Your task to perform on an android device: Open Youtube and go to "Your channel" Image 0: 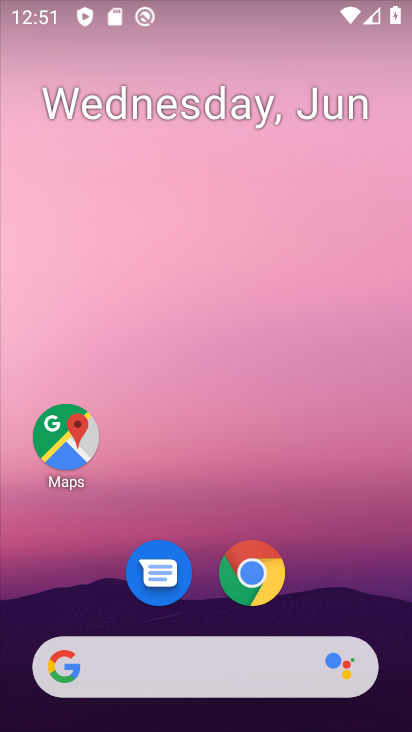
Step 0: drag from (349, 583) to (342, 242)
Your task to perform on an android device: Open Youtube and go to "Your channel" Image 1: 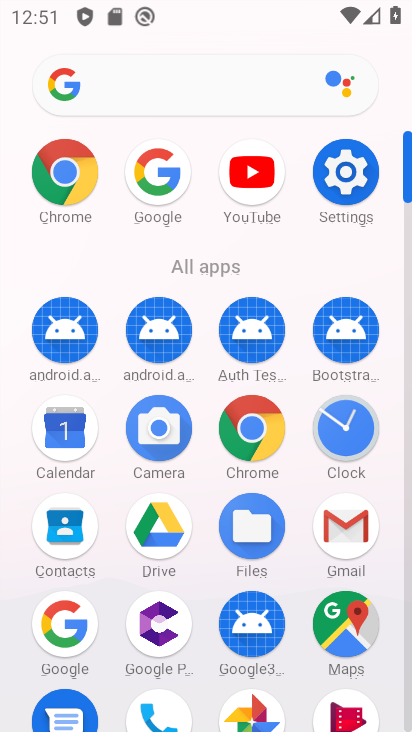
Step 1: drag from (302, 597) to (299, 326)
Your task to perform on an android device: Open Youtube and go to "Your channel" Image 2: 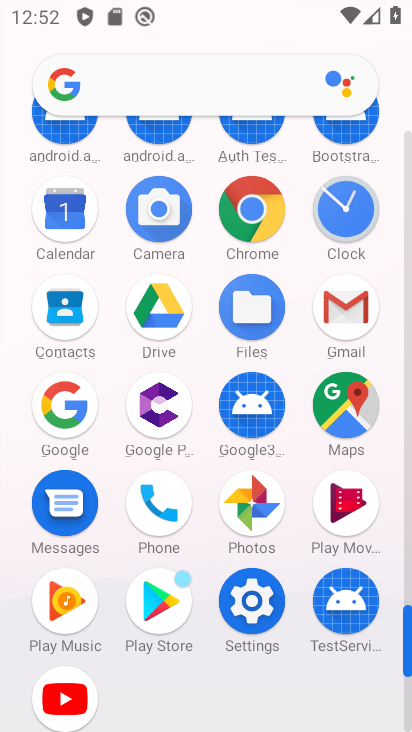
Step 2: click (74, 713)
Your task to perform on an android device: Open Youtube and go to "Your channel" Image 3: 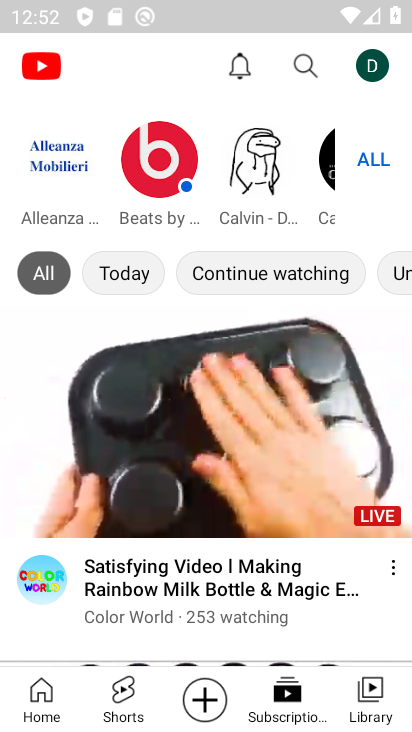
Step 3: click (386, 68)
Your task to perform on an android device: Open Youtube and go to "Your channel" Image 4: 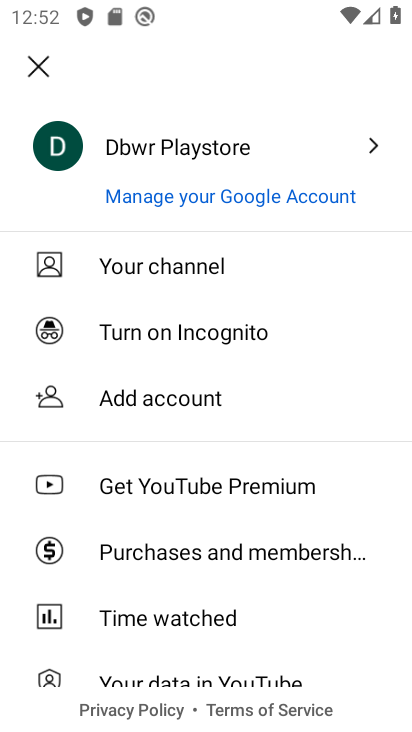
Step 4: click (159, 259)
Your task to perform on an android device: Open Youtube and go to "Your channel" Image 5: 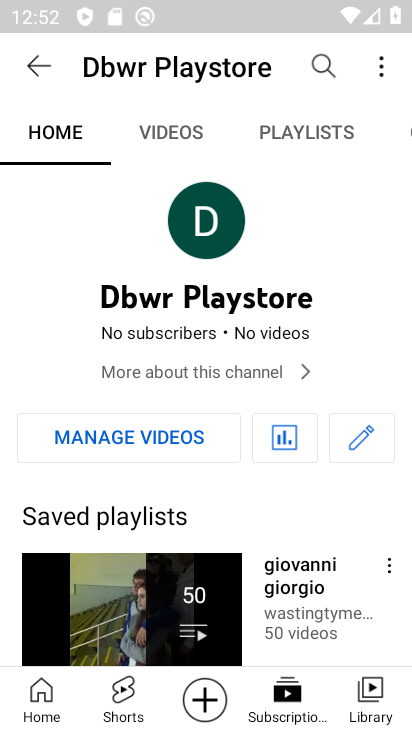
Step 5: task complete